Your task to perform on an android device: check storage Image 0: 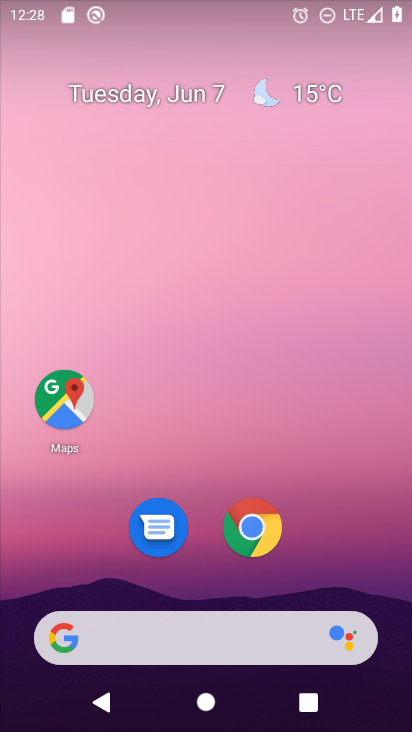
Step 0: drag from (336, 566) to (357, 132)
Your task to perform on an android device: check storage Image 1: 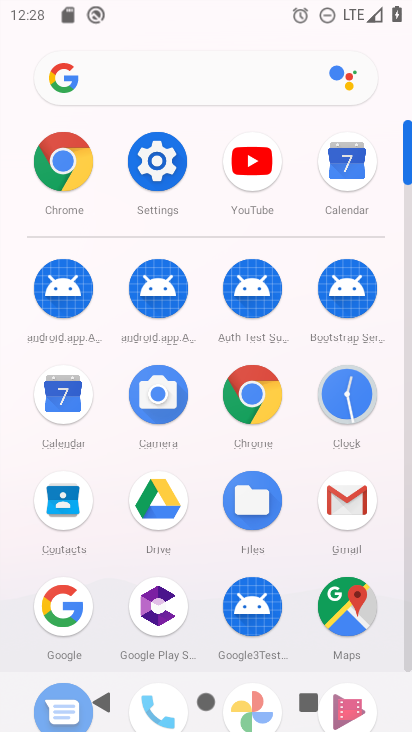
Step 1: click (169, 164)
Your task to perform on an android device: check storage Image 2: 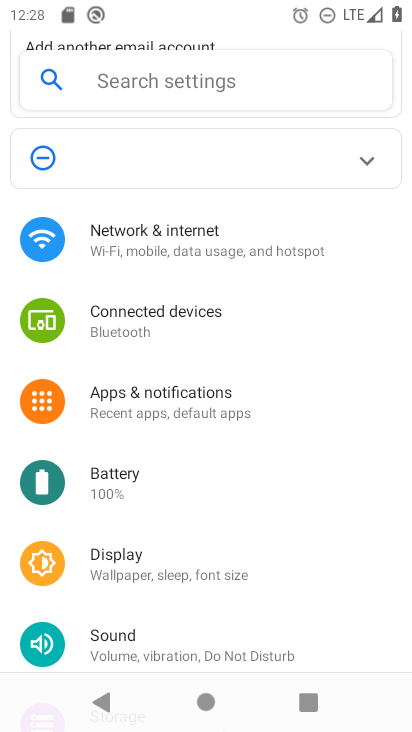
Step 2: drag from (333, 518) to (334, 373)
Your task to perform on an android device: check storage Image 3: 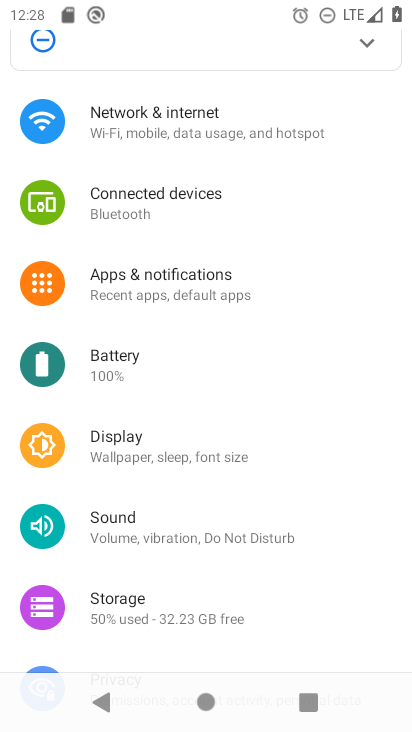
Step 3: drag from (327, 529) to (330, 342)
Your task to perform on an android device: check storage Image 4: 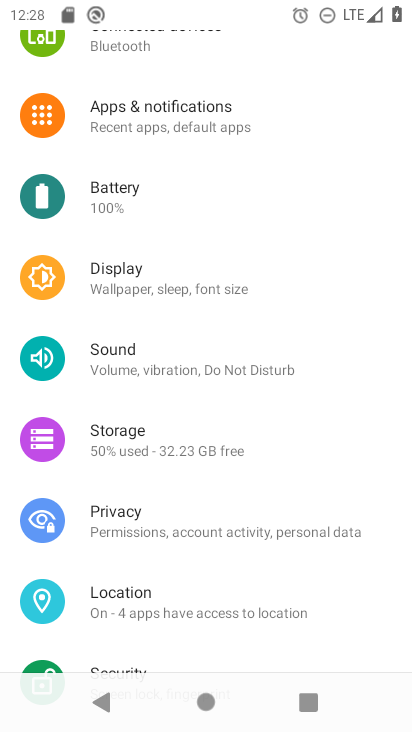
Step 4: drag from (344, 513) to (347, 443)
Your task to perform on an android device: check storage Image 5: 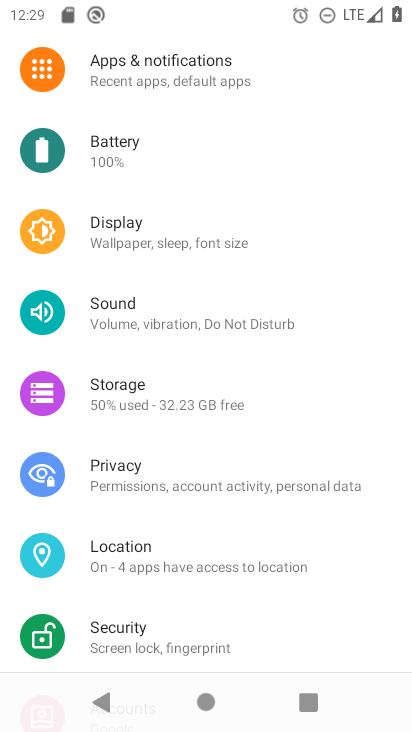
Step 5: drag from (349, 577) to (345, 359)
Your task to perform on an android device: check storage Image 6: 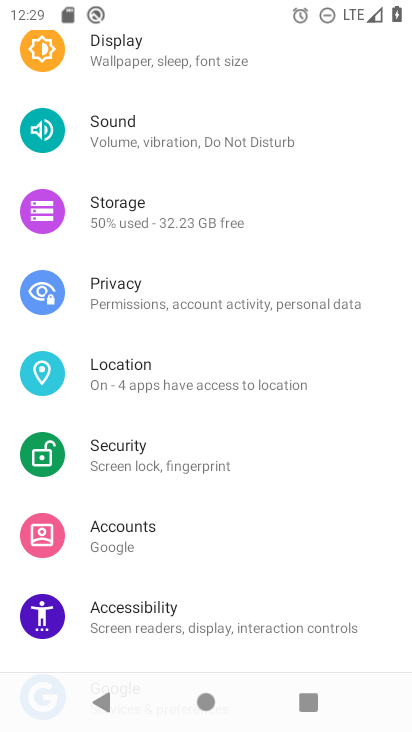
Step 6: drag from (353, 541) to (351, 337)
Your task to perform on an android device: check storage Image 7: 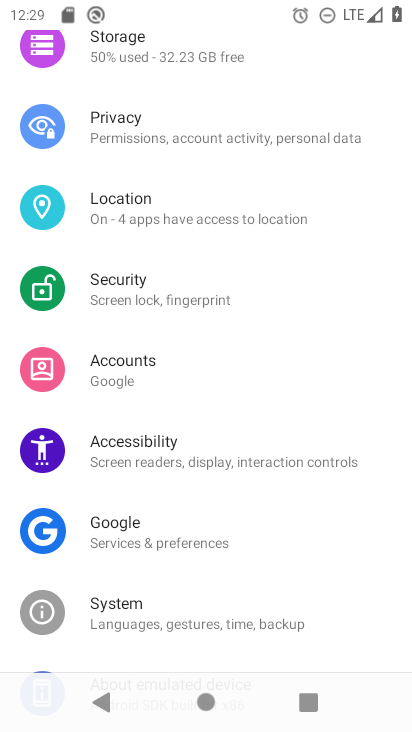
Step 7: drag from (354, 566) to (355, 314)
Your task to perform on an android device: check storage Image 8: 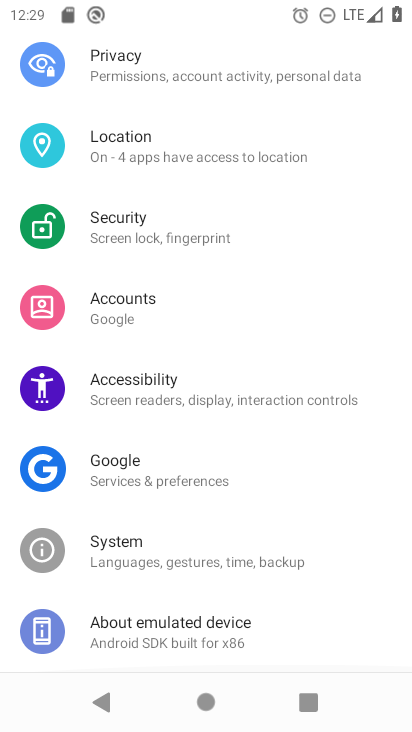
Step 8: drag from (356, 233) to (362, 452)
Your task to perform on an android device: check storage Image 9: 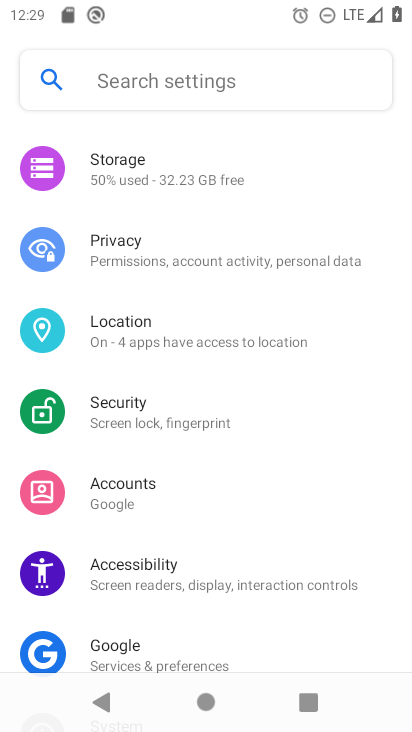
Step 9: drag from (348, 207) to (348, 510)
Your task to perform on an android device: check storage Image 10: 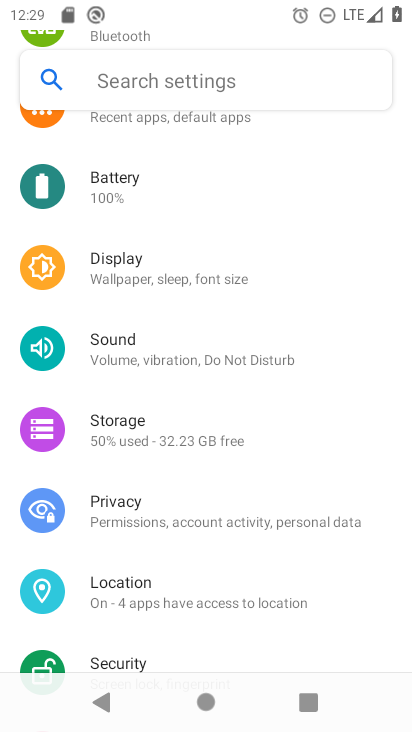
Step 10: click (237, 418)
Your task to perform on an android device: check storage Image 11: 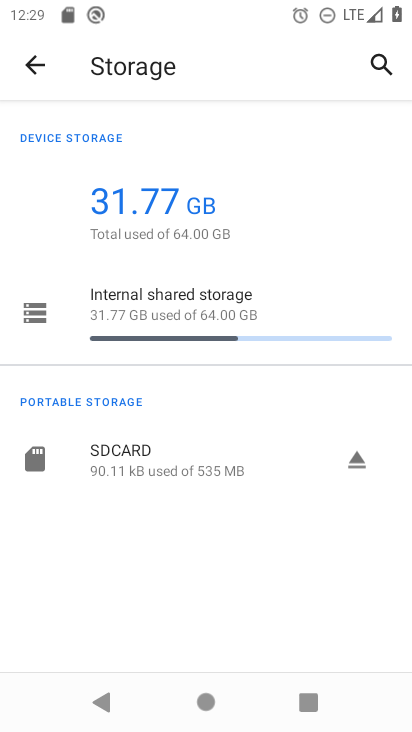
Step 11: task complete